Your task to perform on an android device: Go to notification settings Image 0: 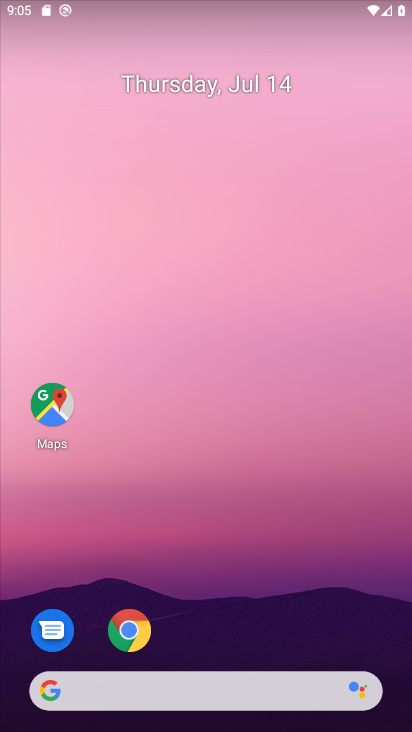
Step 0: drag from (190, 673) to (272, 85)
Your task to perform on an android device: Go to notification settings Image 1: 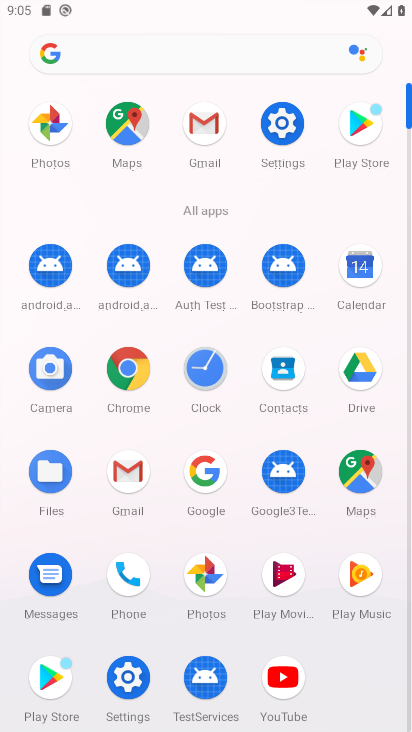
Step 1: click (126, 680)
Your task to perform on an android device: Go to notification settings Image 2: 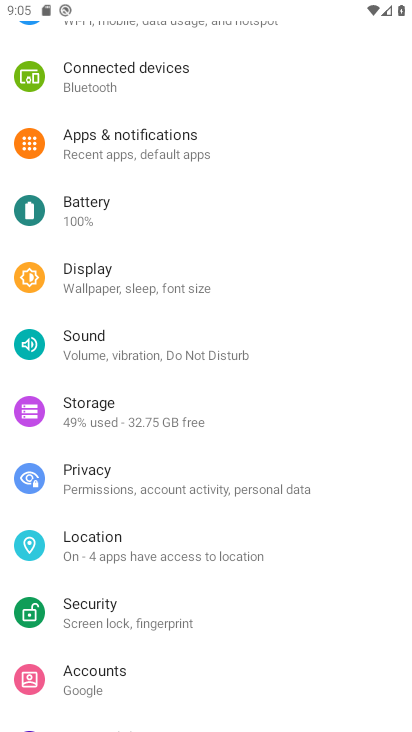
Step 2: click (187, 145)
Your task to perform on an android device: Go to notification settings Image 3: 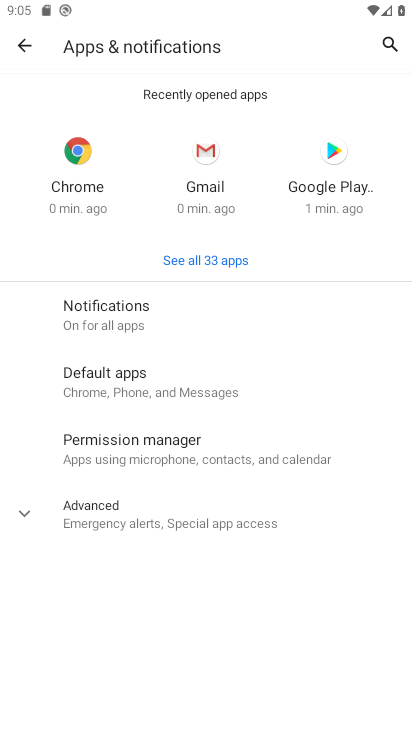
Step 3: click (137, 296)
Your task to perform on an android device: Go to notification settings Image 4: 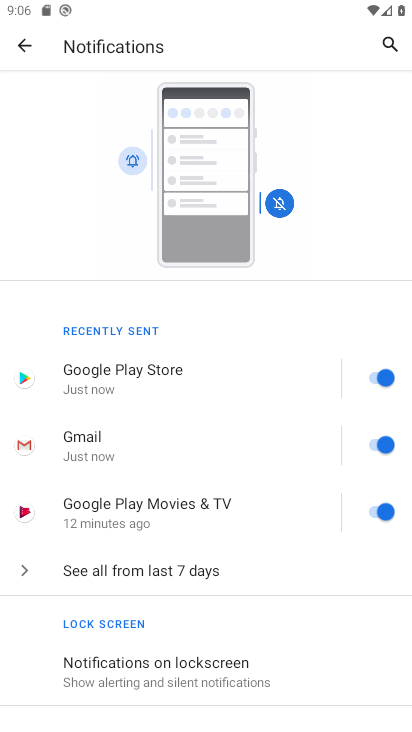
Step 4: task complete